Your task to perform on an android device: toggle javascript in the chrome app Image 0: 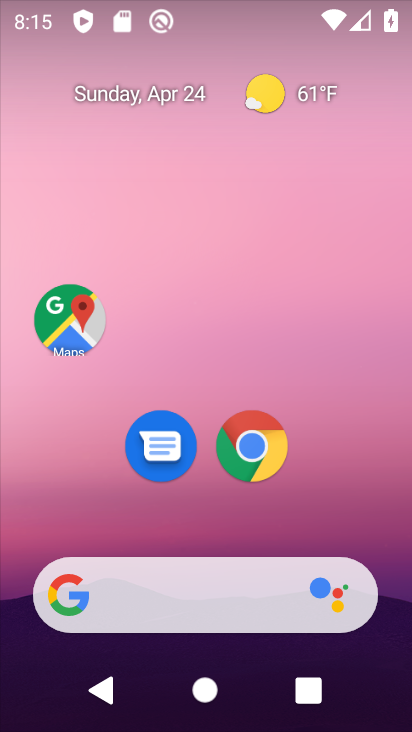
Step 0: drag from (236, 614) to (78, 13)
Your task to perform on an android device: toggle javascript in the chrome app Image 1: 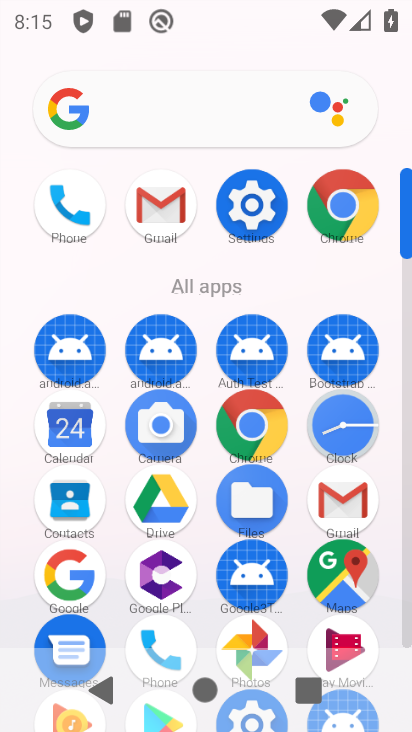
Step 1: click (266, 427)
Your task to perform on an android device: toggle javascript in the chrome app Image 2: 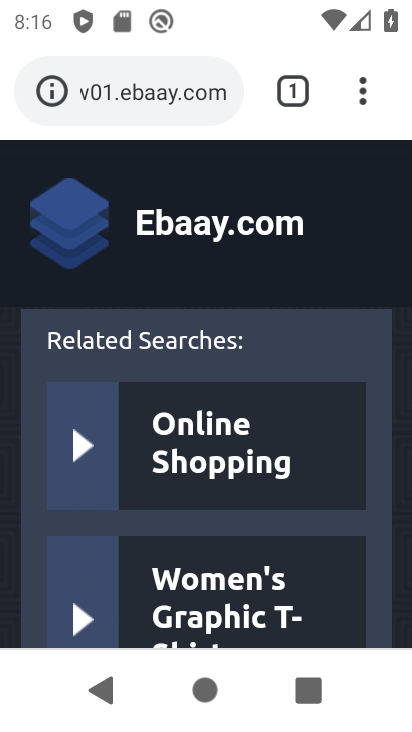
Step 2: click (359, 94)
Your task to perform on an android device: toggle javascript in the chrome app Image 3: 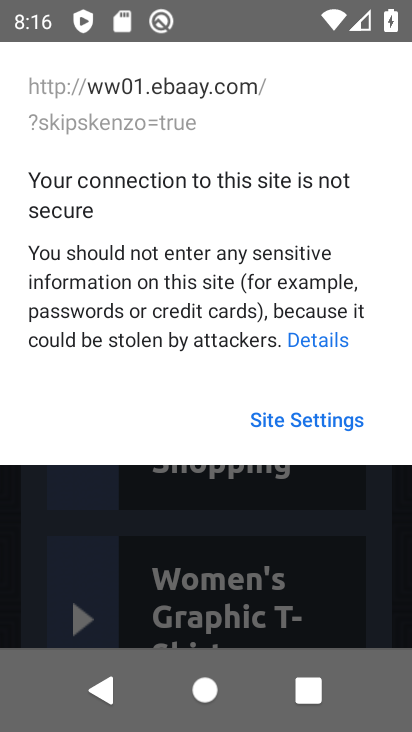
Step 3: click (289, 480)
Your task to perform on an android device: toggle javascript in the chrome app Image 4: 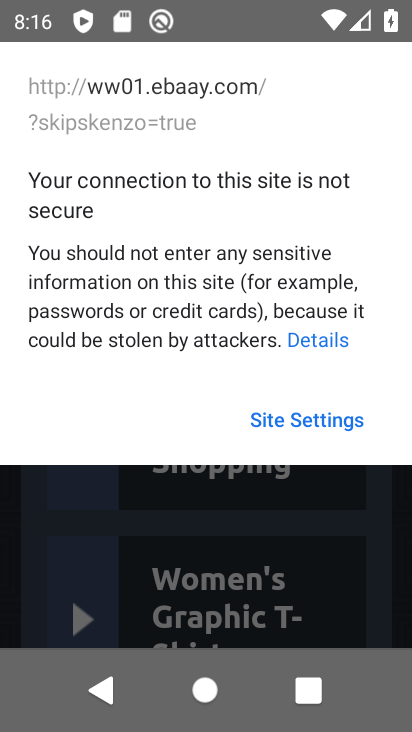
Step 4: click (254, 538)
Your task to perform on an android device: toggle javascript in the chrome app Image 5: 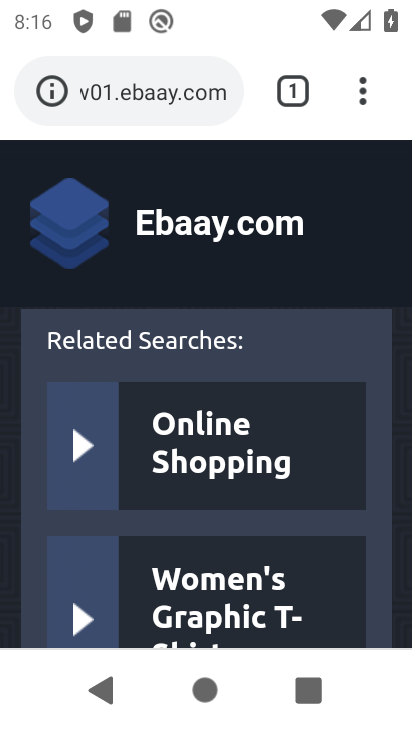
Step 5: click (367, 97)
Your task to perform on an android device: toggle javascript in the chrome app Image 6: 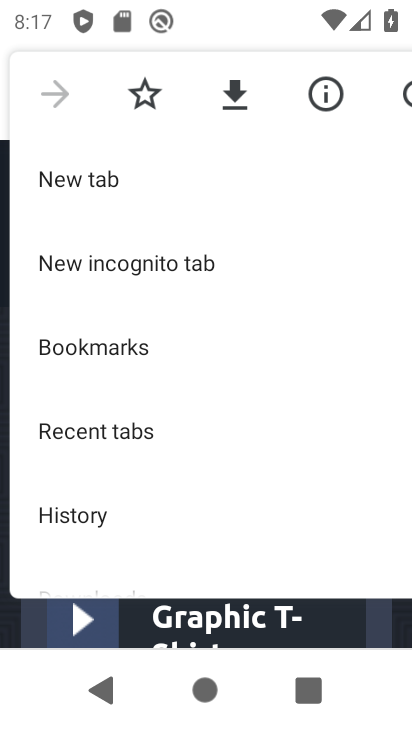
Step 6: drag from (98, 512) to (177, 170)
Your task to perform on an android device: toggle javascript in the chrome app Image 7: 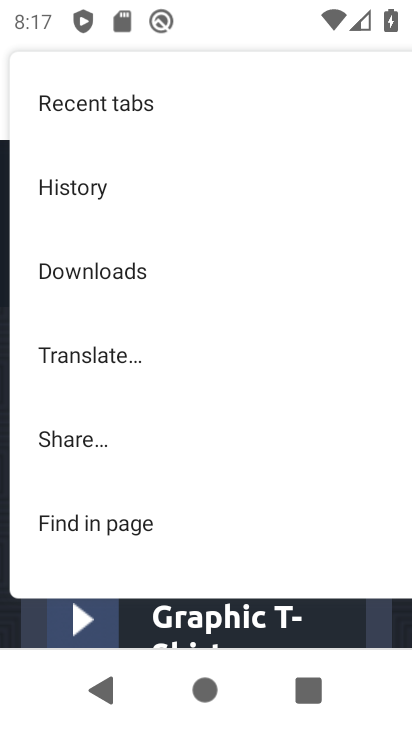
Step 7: drag from (142, 520) to (183, 265)
Your task to perform on an android device: toggle javascript in the chrome app Image 8: 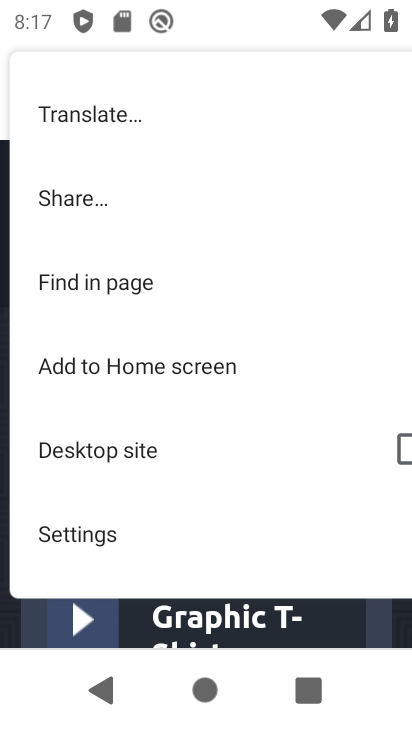
Step 8: click (93, 545)
Your task to perform on an android device: toggle javascript in the chrome app Image 9: 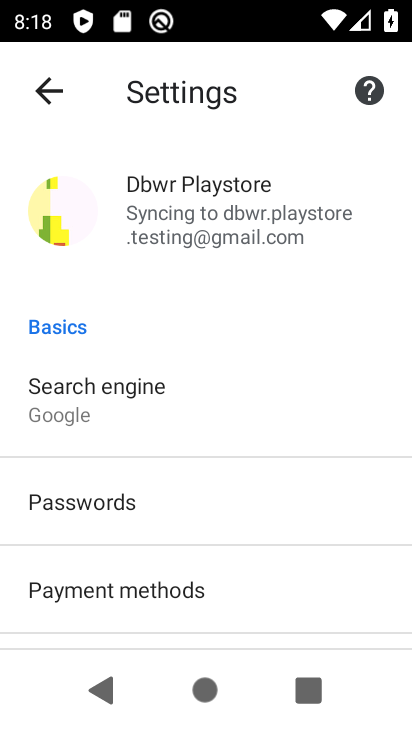
Step 9: drag from (111, 388) to (123, 183)
Your task to perform on an android device: toggle javascript in the chrome app Image 10: 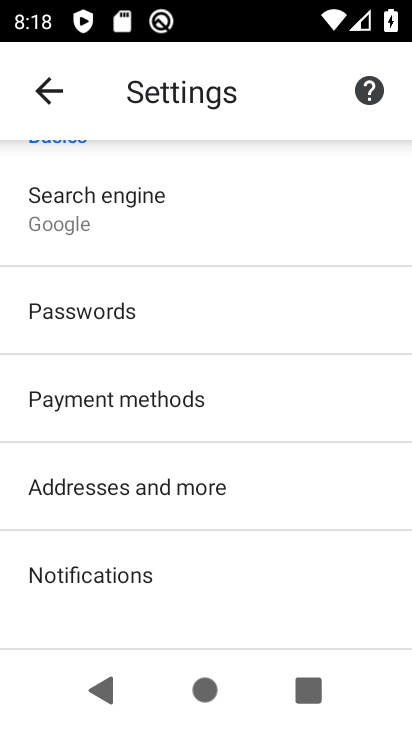
Step 10: drag from (152, 506) to (236, 209)
Your task to perform on an android device: toggle javascript in the chrome app Image 11: 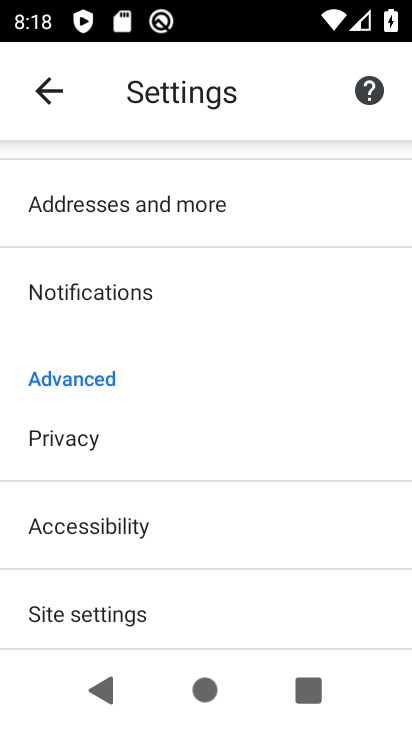
Step 11: drag from (163, 497) to (162, 379)
Your task to perform on an android device: toggle javascript in the chrome app Image 12: 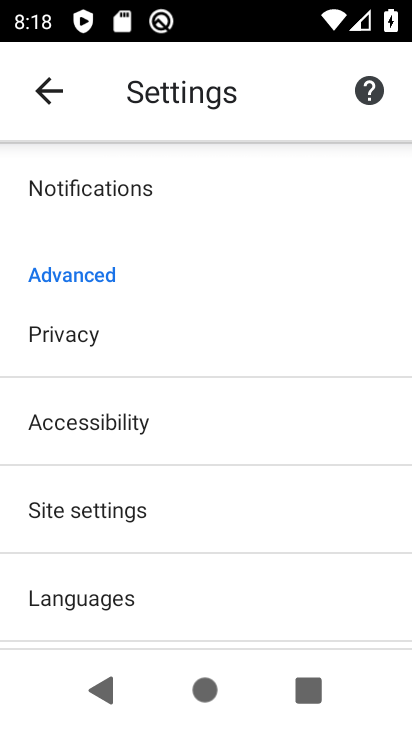
Step 12: drag from (159, 529) to (178, 319)
Your task to perform on an android device: toggle javascript in the chrome app Image 13: 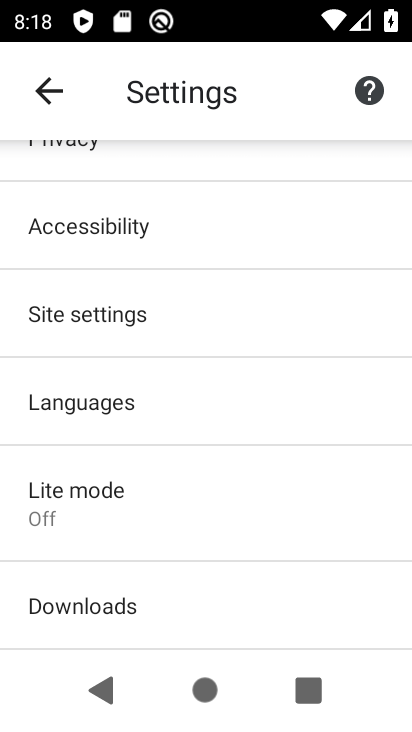
Step 13: drag from (166, 516) to (189, 247)
Your task to perform on an android device: toggle javascript in the chrome app Image 14: 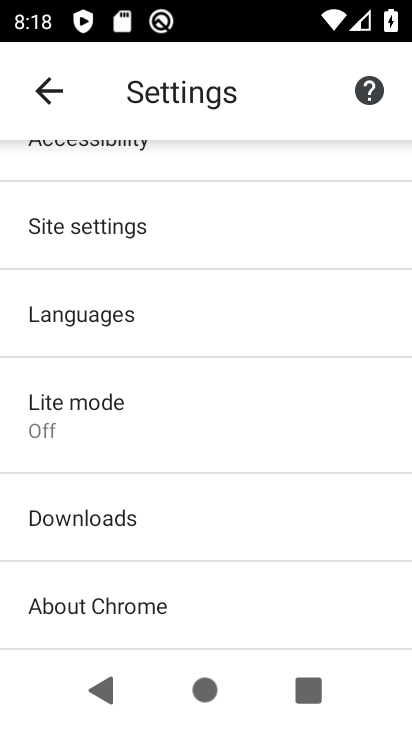
Step 14: click (175, 237)
Your task to perform on an android device: toggle javascript in the chrome app Image 15: 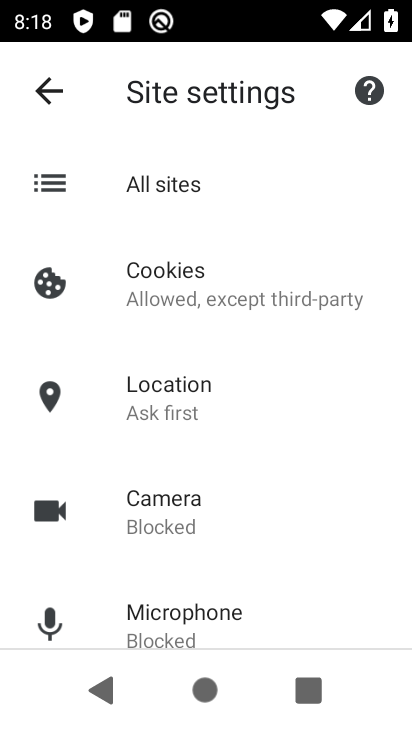
Step 15: drag from (202, 386) to (313, 6)
Your task to perform on an android device: toggle javascript in the chrome app Image 16: 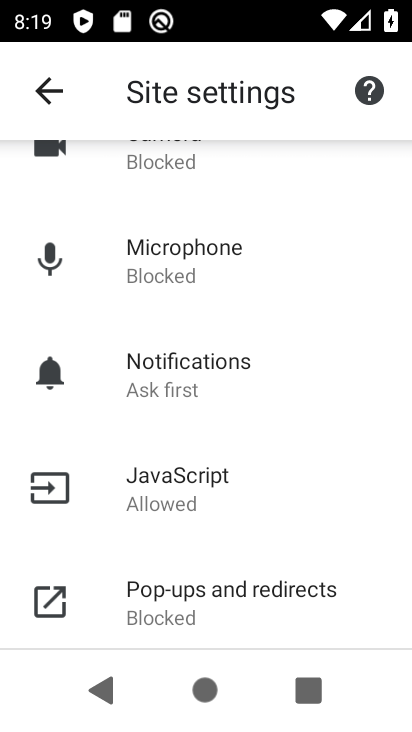
Step 16: click (225, 488)
Your task to perform on an android device: toggle javascript in the chrome app Image 17: 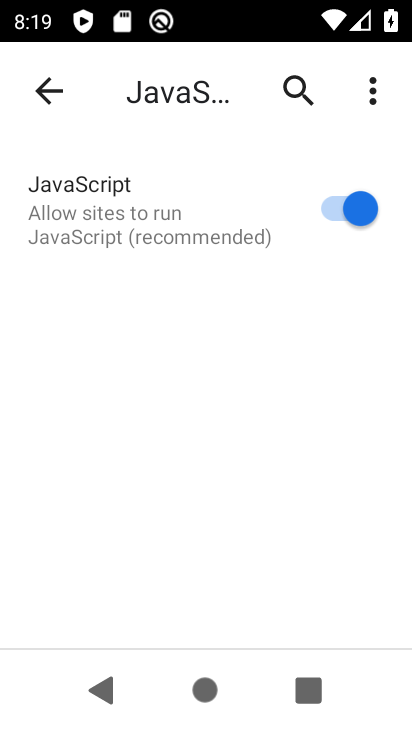
Step 17: click (329, 215)
Your task to perform on an android device: toggle javascript in the chrome app Image 18: 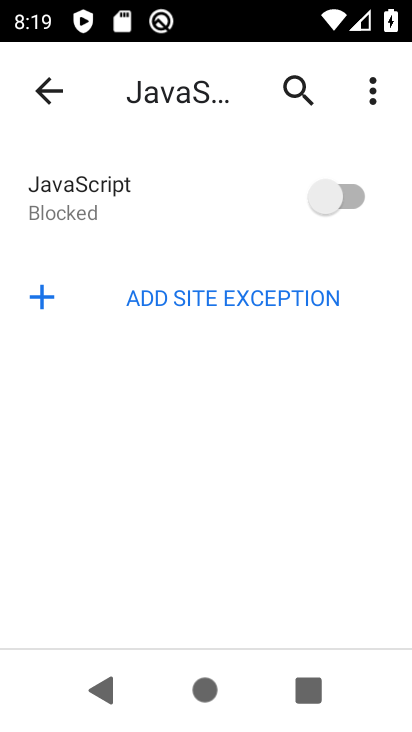
Step 18: task complete